Your task to perform on an android device: Toggle the flashlight Image 0: 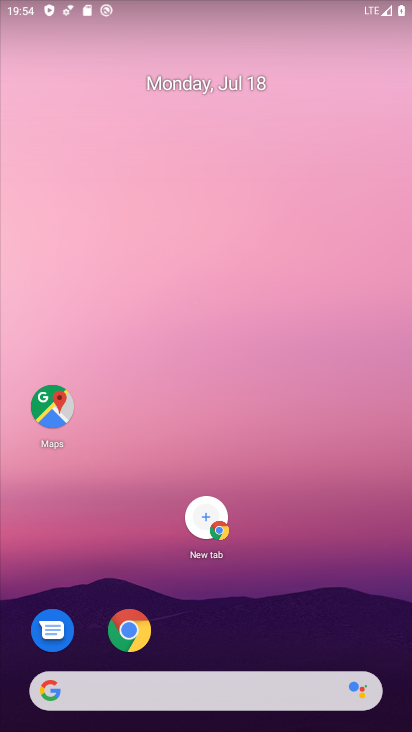
Step 0: drag from (303, 3) to (316, 407)
Your task to perform on an android device: Toggle the flashlight Image 1: 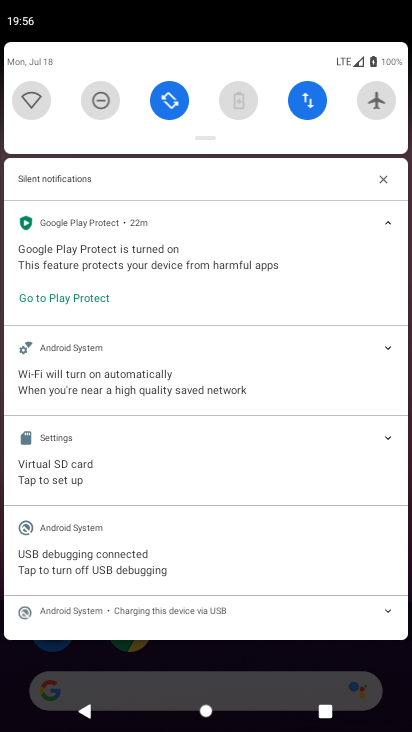
Step 1: press home button
Your task to perform on an android device: Toggle the flashlight Image 2: 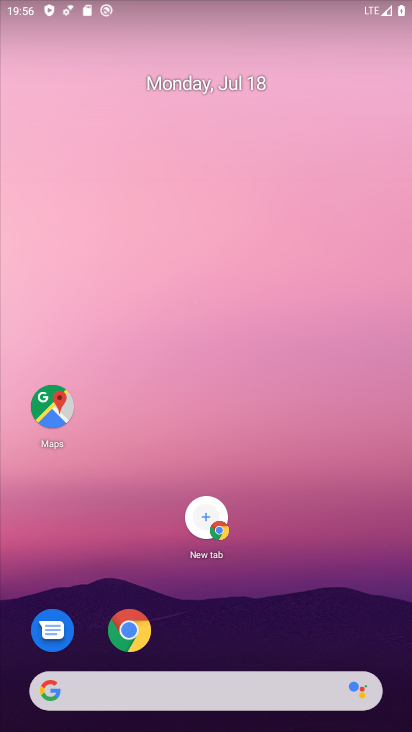
Step 2: drag from (248, 16) to (193, 562)
Your task to perform on an android device: Toggle the flashlight Image 3: 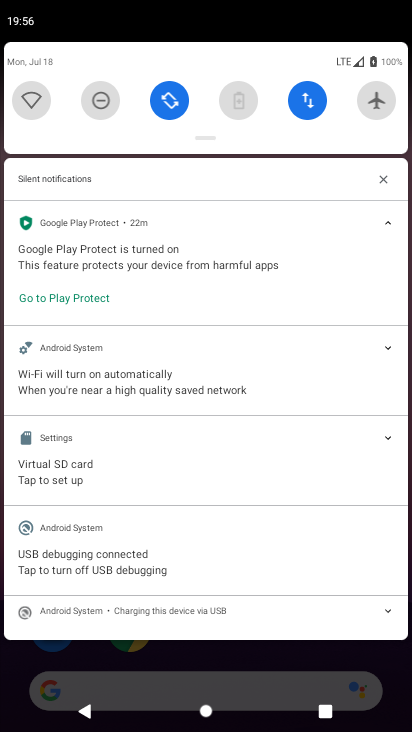
Step 3: drag from (254, 132) to (273, 539)
Your task to perform on an android device: Toggle the flashlight Image 4: 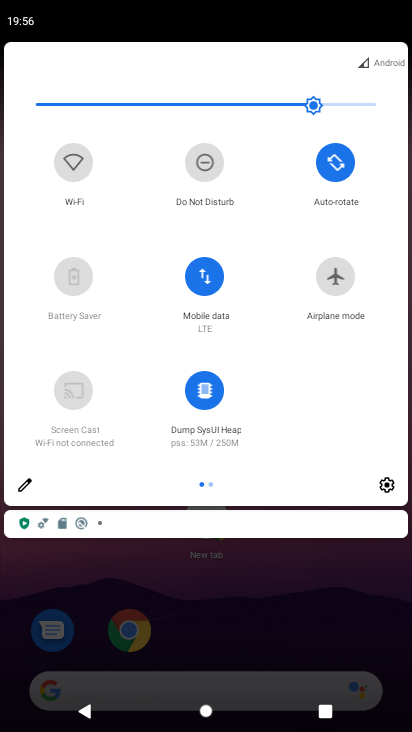
Step 4: drag from (380, 430) to (23, 404)
Your task to perform on an android device: Toggle the flashlight Image 5: 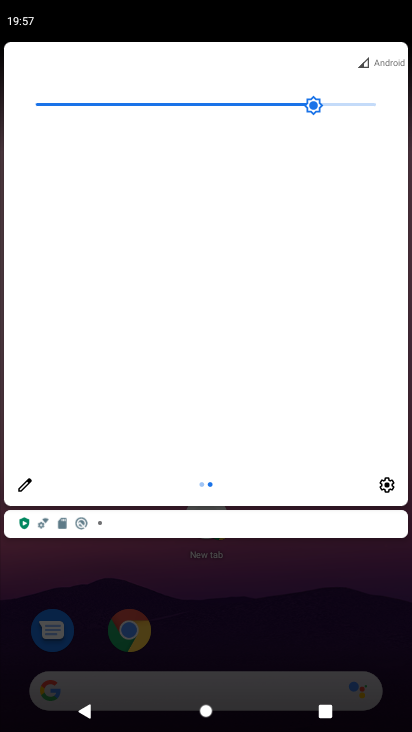
Step 5: click (30, 490)
Your task to perform on an android device: Toggle the flashlight Image 6: 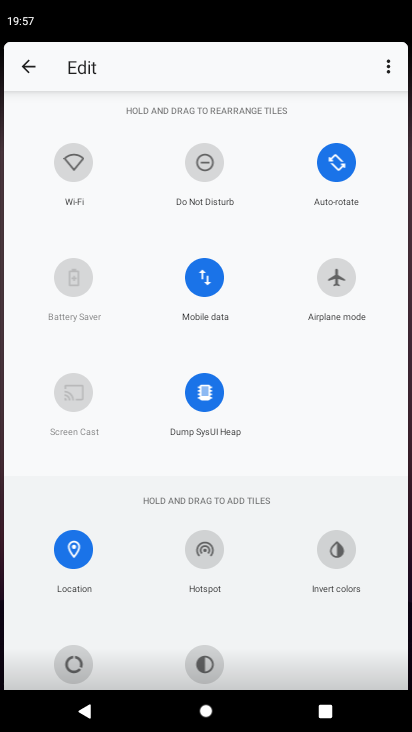
Step 6: task complete